Your task to perform on an android device: Open settings Image 0: 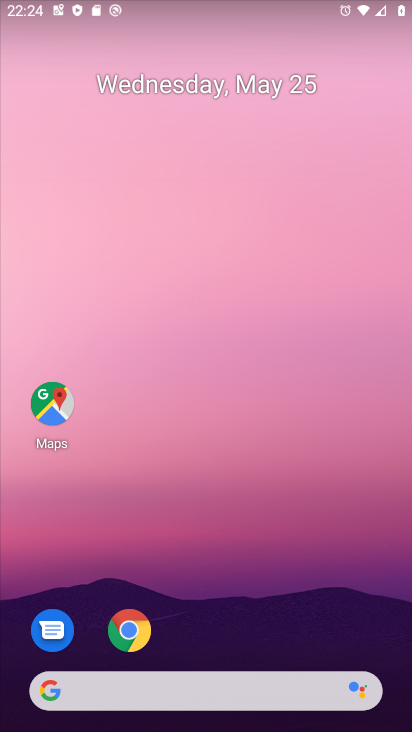
Step 0: drag from (211, 492) to (218, 244)
Your task to perform on an android device: Open settings Image 1: 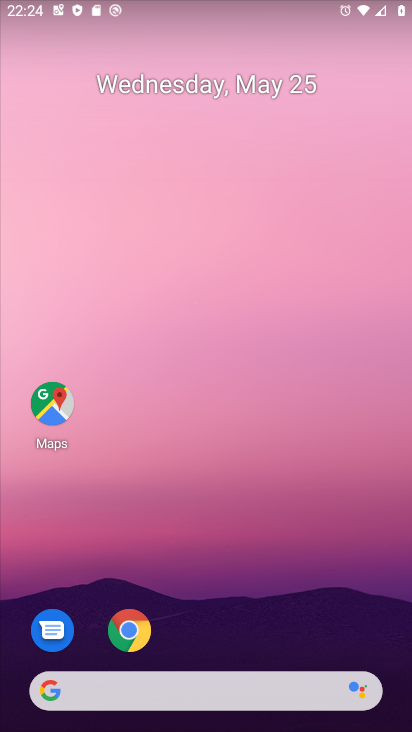
Step 1: drag from (204, 651) to (208, 167)
Your task to perform on an android device: Open settings Image 2: 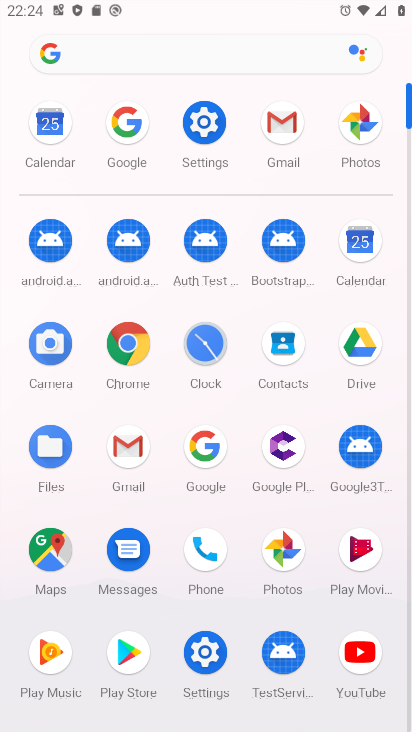
Step 2: click (197, 140)
Your task to perform on an android device: Open settings Image 3: 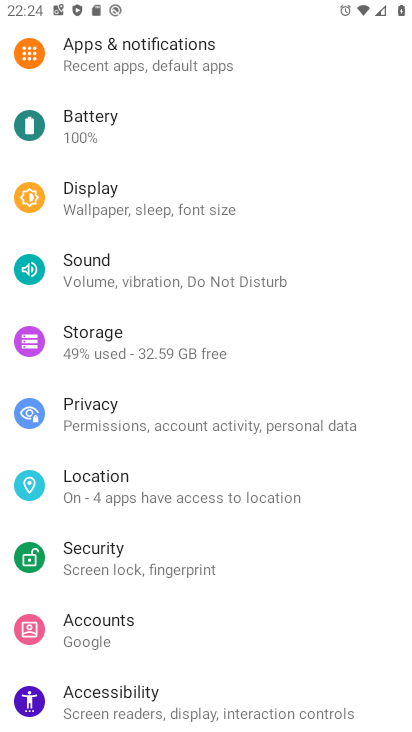
Step 3: task complete